Your task to perform on an android device: toggle javascript in the chrome app Image 0: 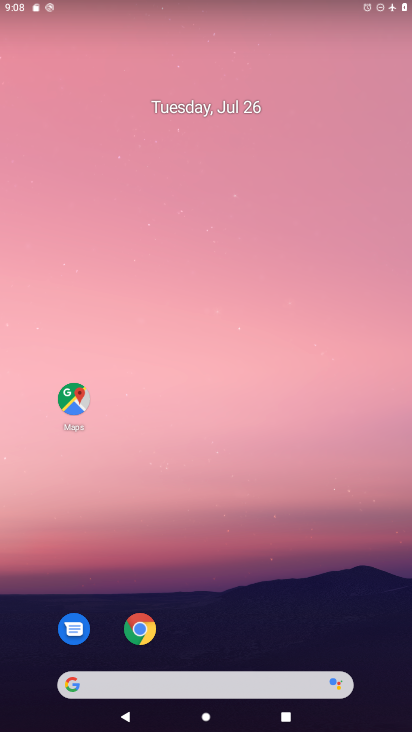
Step 0: drag from (199, 666) to (154, 57)
Your task to perform on an android device: toggle javascript in the chrome app Image 1: 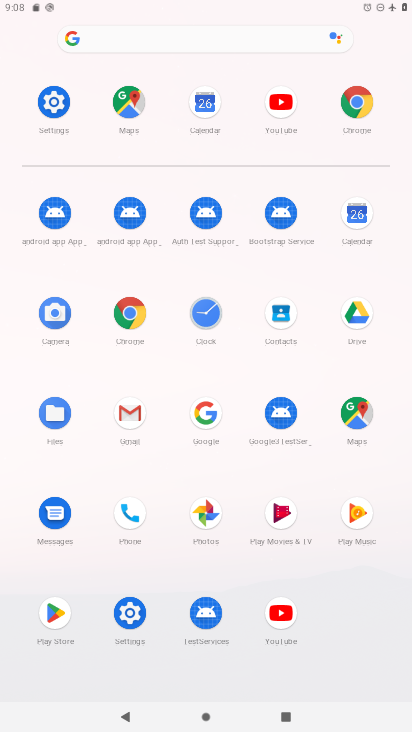
Step 1: click (124, 309)
Your task to perform on an android device: toggle javascript in the chrome app Image 2: 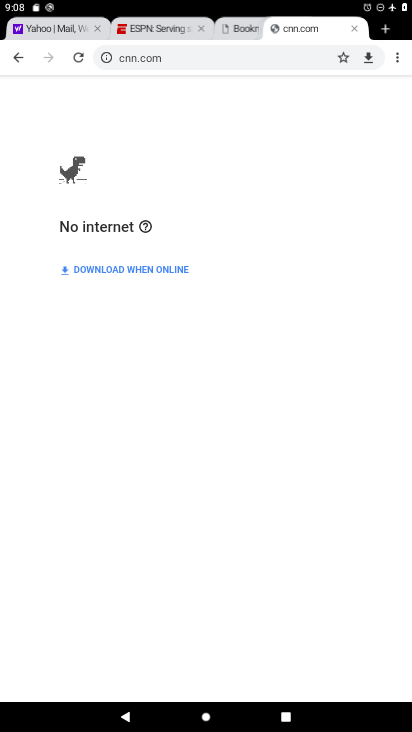
Step 2: click (397, 56)
Your task to perform on an android device: toggle javascript in the chrome app Image 3: 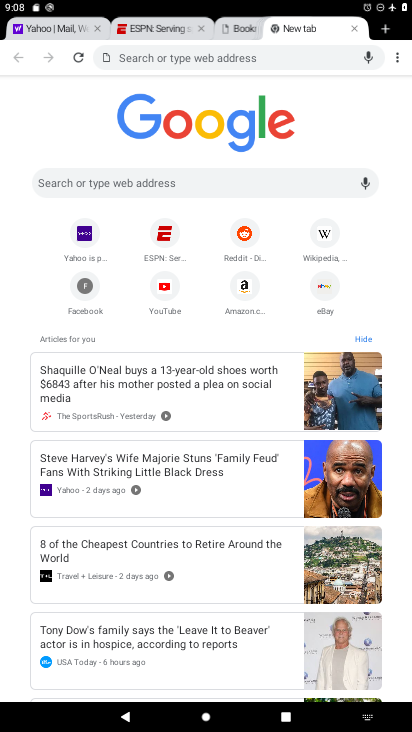
Step 3: click (395, 57)
Your task to perform on an android device: toggle javascript in the chrome app Image 4: 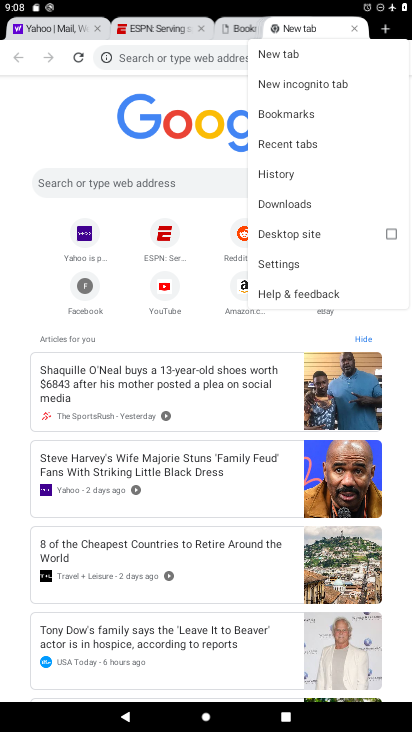
Step 4: click (292, 264)
Your task to perform on an android device: toggle javascript in the chrome app Image 5: 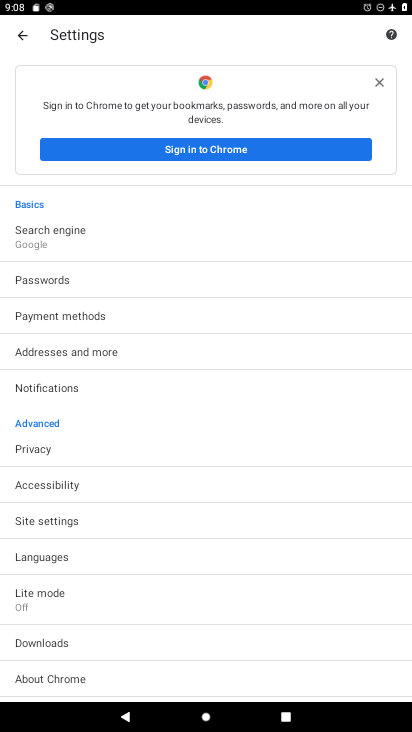
Step 5: click (72, 524)
Your task to perform on an android device: toggle javascript in the chrome app Image 6: 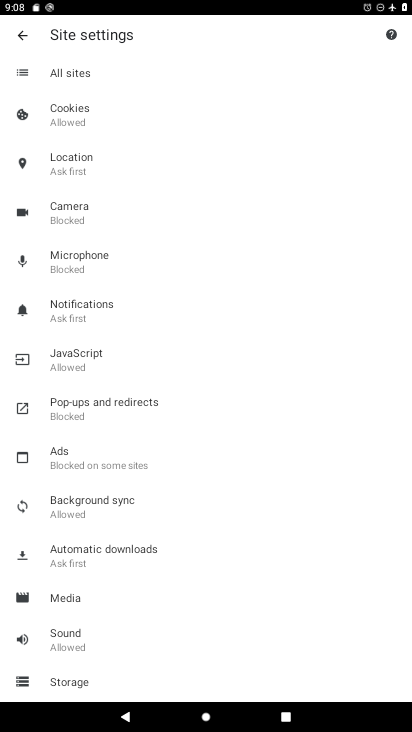
Step 6: click (83, 366)
Your task to perform on an android device: toggle javascript in the chrome app Image 7: 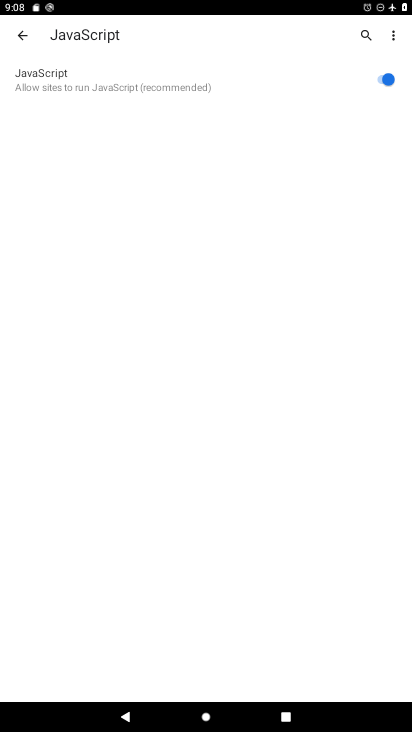
Step 7: click (391, 74)
Your task to perform on an android device: toggle javascript in the chrome app Image 8: 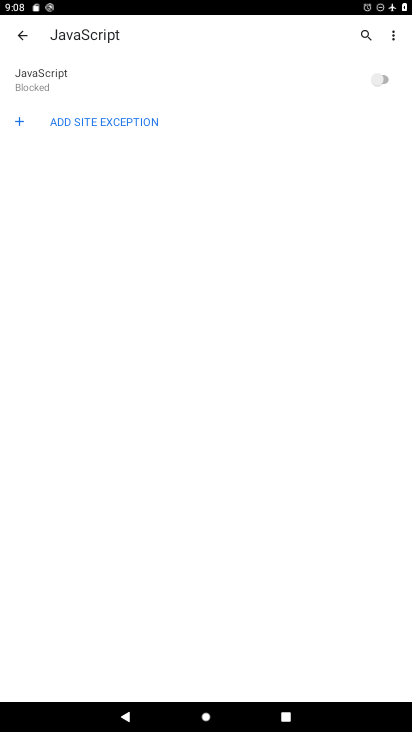
Step 8: task complete